Your task to perform on an android device: Toggle the flashlight Image 0: 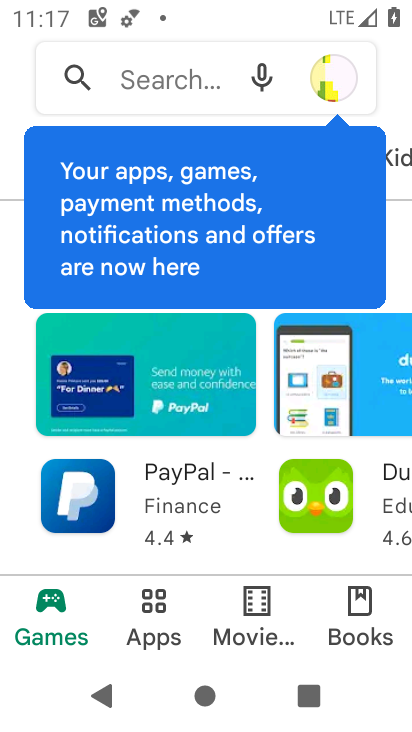
Step 0: press home button
Your task to perform on an android device: Toggle the flashlight Image 1: 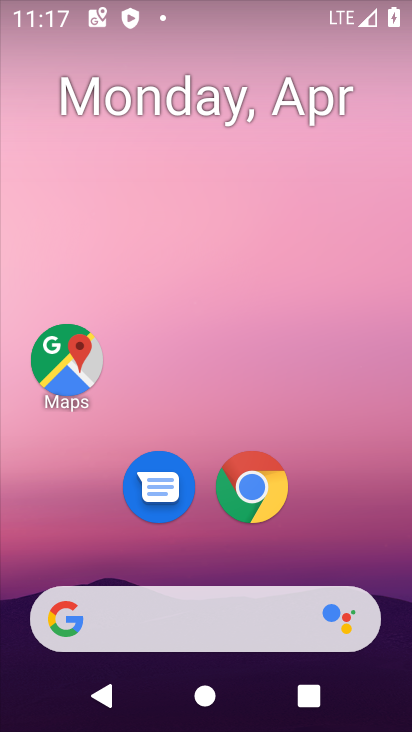
Step 1: drag from (336, 5) to (383, 592)
Your task to perform on an android device: Toggle the flashlight Image 2: 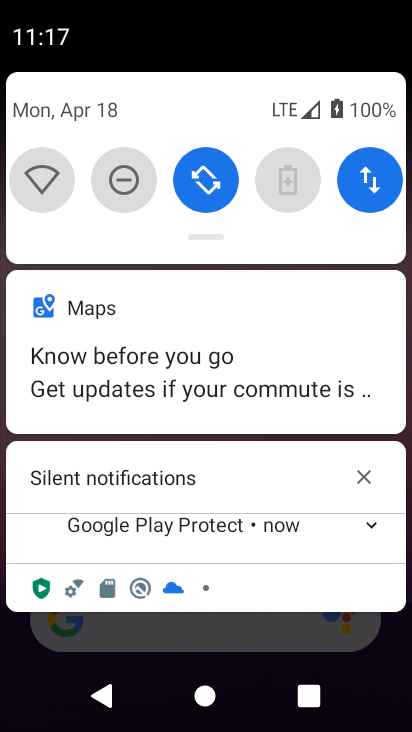
Step 2: drag from (248, 210) to (287, 454)
Your task to perform on an android device: Toggle the flashlight Image 3: 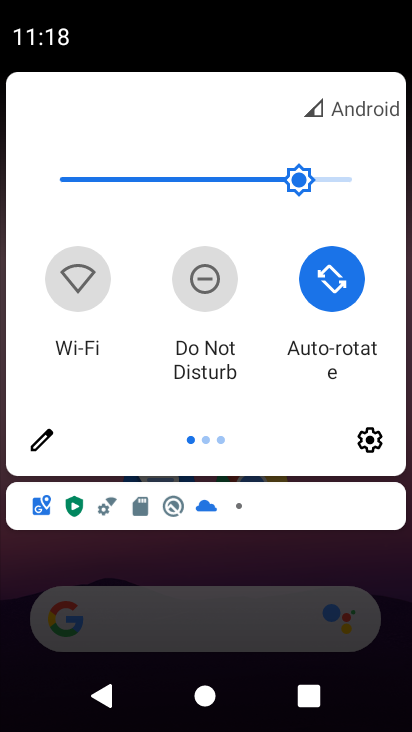
Step 3: drag from (380, 392) to (9, 352)
Your task to perform on an android device: Toggle the flashlight Image 4: 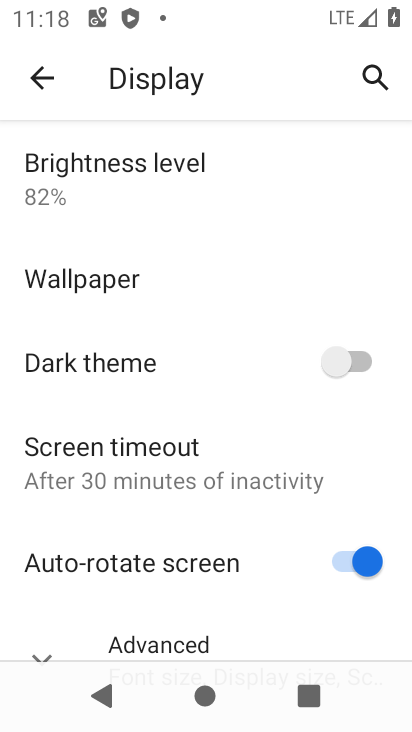
Step 4: drag from (254, 4) to (200, 490)
Your task to perform on an android device: Toggle the flashlight Image 5: 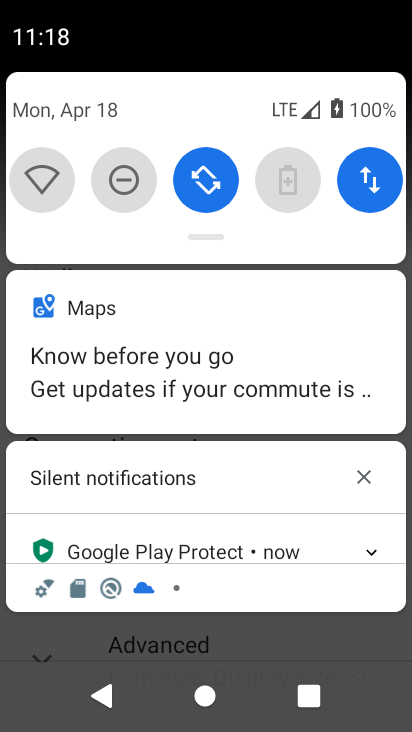
Step 5: drag from (240, 217) to (234, 609)
Your task to perform on an android device: Toggle the flashlight Image 6: 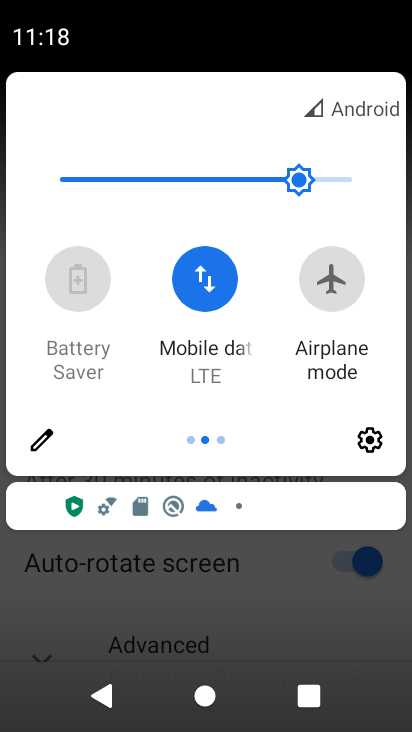
Step 6: drag from (393, 389) to (3, 365)
Your task to perform on an android device: Toggle the flashlight Image 7: 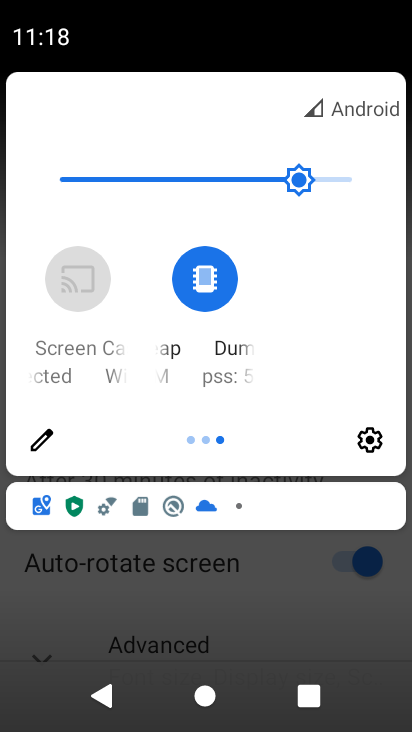
Step 7: click (42, 437)
Your task to perform on an android device: Toggle the flashlight Image 8: 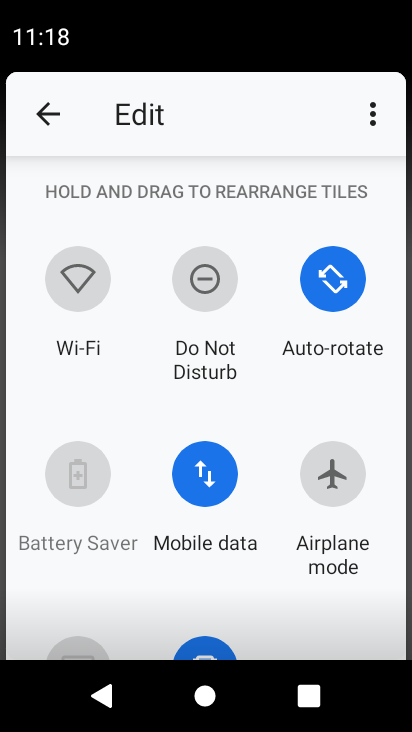
Step 8: task complete